Your task to perform on an android device: What is the news today? Image 0: 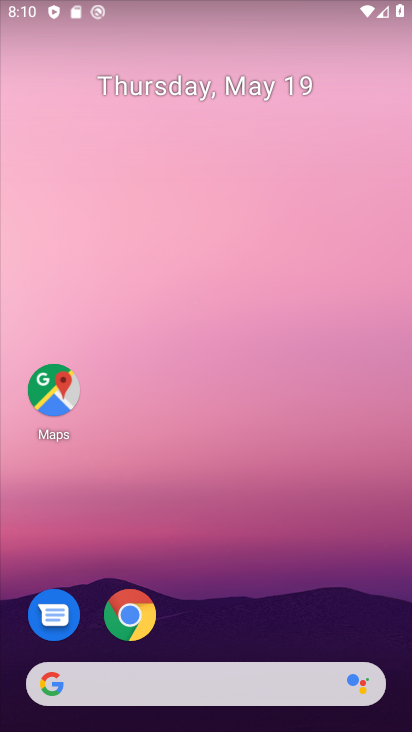
Step 0: click (169, 676)
Your task to perform on an android device: What is the news today? Image 1: 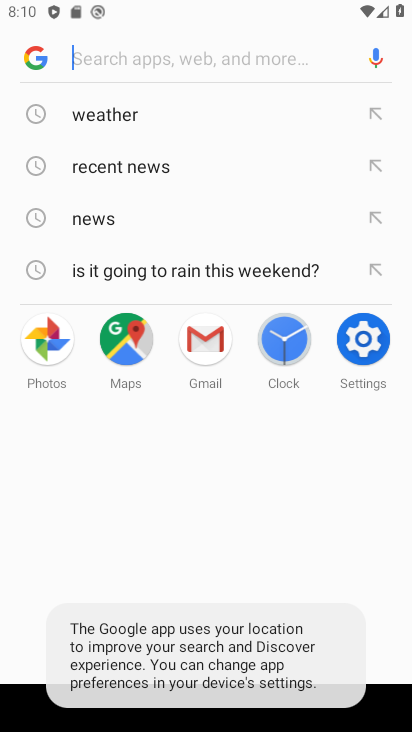
Step 1: click (169, 676)
Your task to perform on an android device: What is the news today? Image 2: 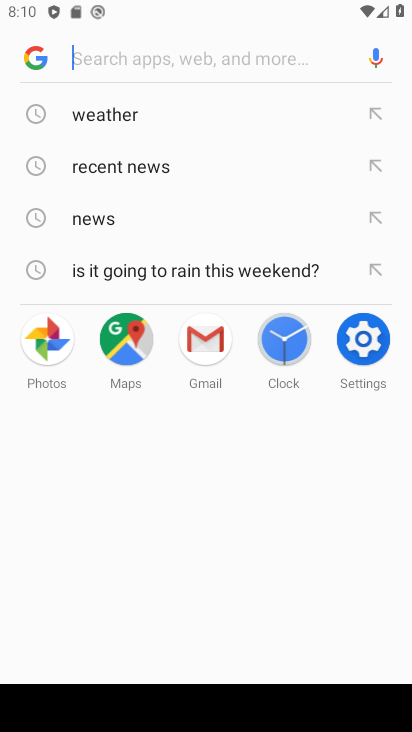
Step 2: click (170, 170)
Your task to perform on an android device: What is the news today? Image 3: 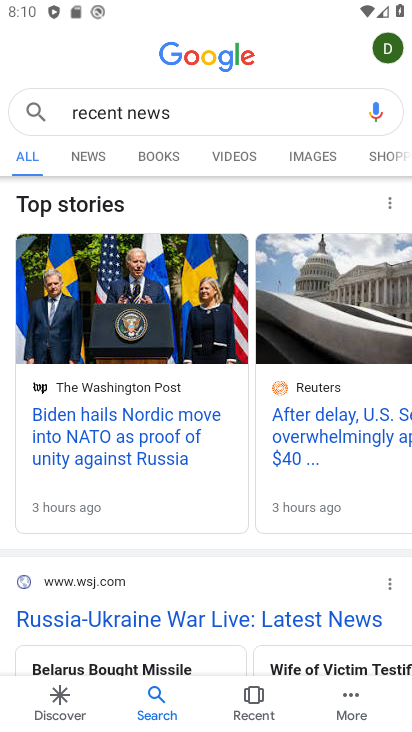
Step 3: click (271, 452)
Your task to perform on an android device: What is the news today? Image 4: 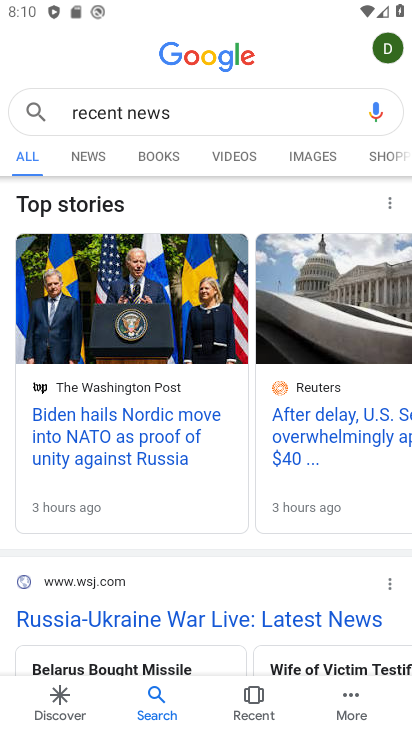
Step 4: drag from (271, 452) to (285, 582)
Your task to perform on an android device: What is the news today? Image 5: 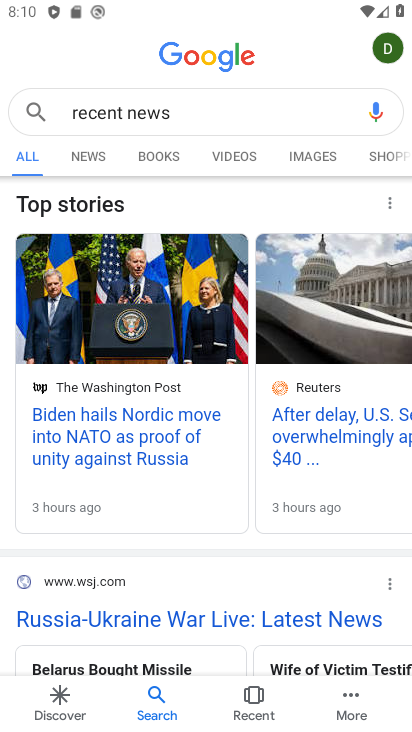
Step 5: drag from (285, 582) to (270, 726)
Your task to perform on an android device: What is the news today? Image 6: 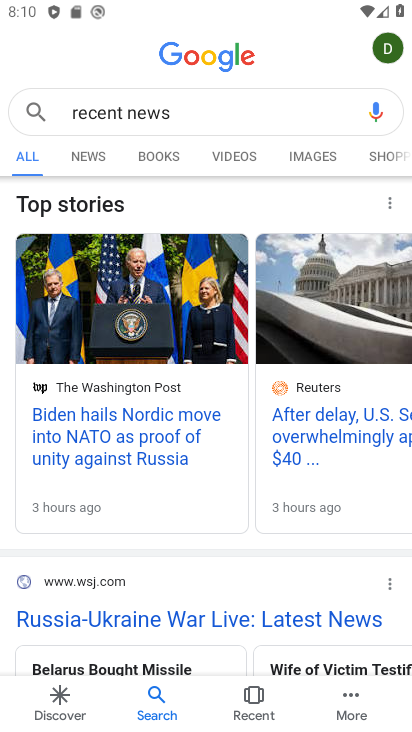
Step 6: click (116, 339)
Your task to perform on an android device: What is the news today? Image 7: 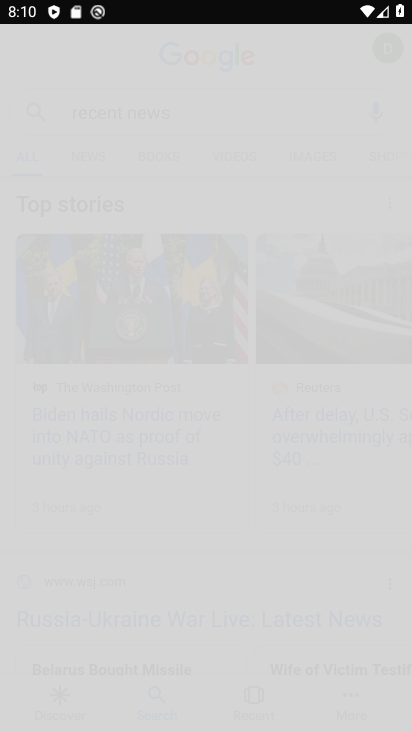
Step 7: drag from (223, 218) to (211, 554)
Your task to perform on an android device: What is the news today? Image 8: 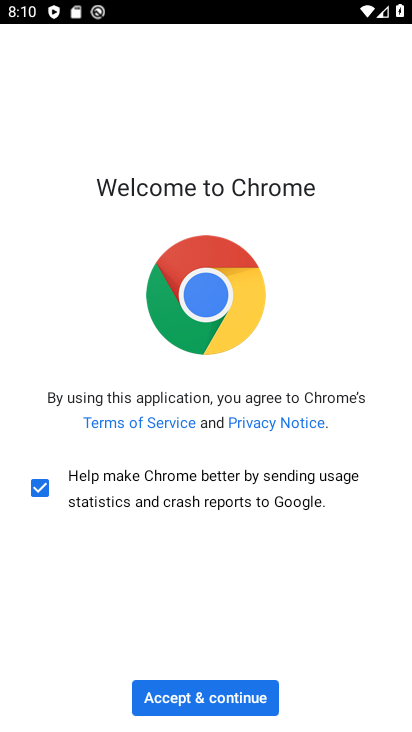
Step 8: click (328, 3)
Your task to perform on an android device: What is the news today? Image 9: 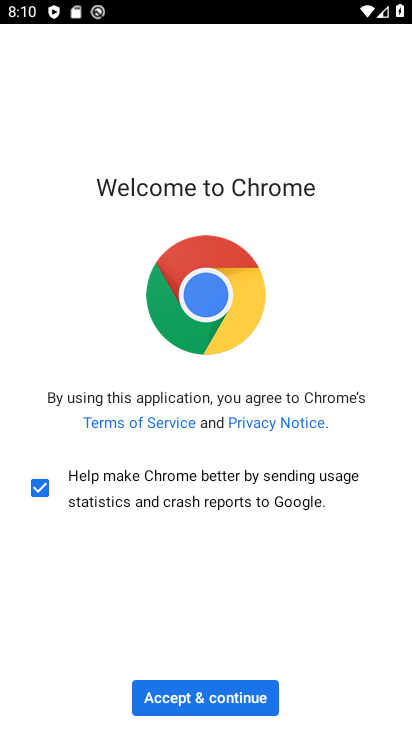
Step 9: task complete